Your task to perform on an android device: What's the weather today? Image 0: 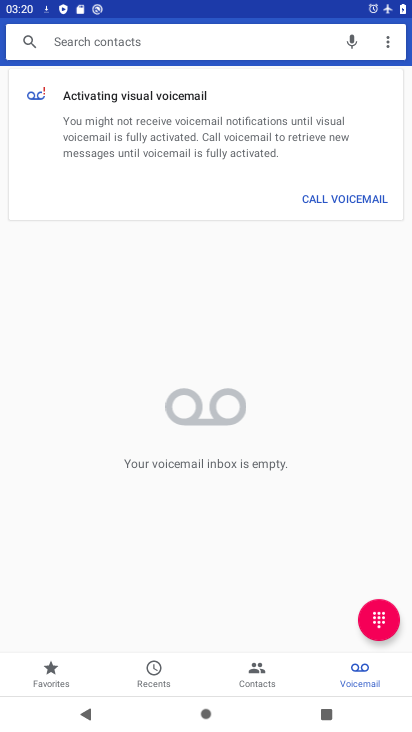
Step 0: press home button
Your task to perform on an android device: What's the weather today? Image 1: 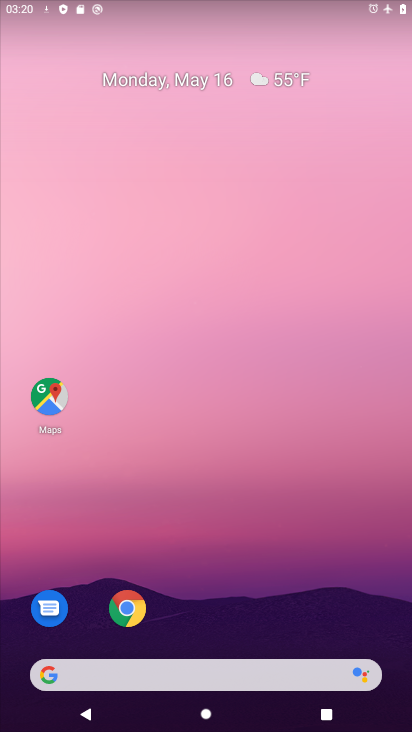
Step 1: drag from (223, 633) to (259, 234)
Your task to perform on an android device: What's the weather today? Image 2: 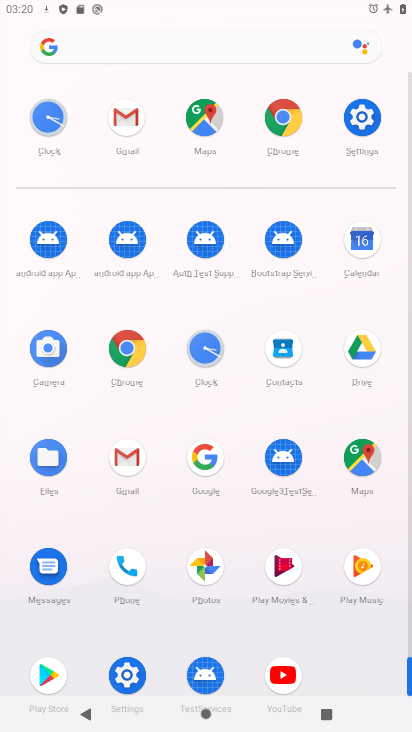
Step 2: click (192, 460)
Your task to perform on an android device: What's the weather today? Image 3: 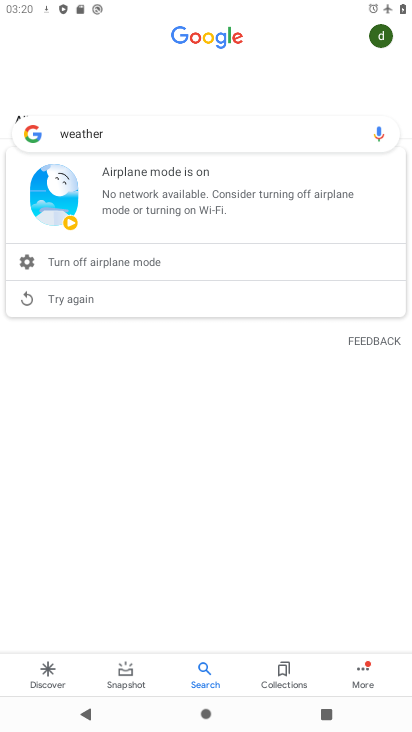
Step 3: click (164, 231)
Your task to perform on an android device: What's the weather today? Image 4: 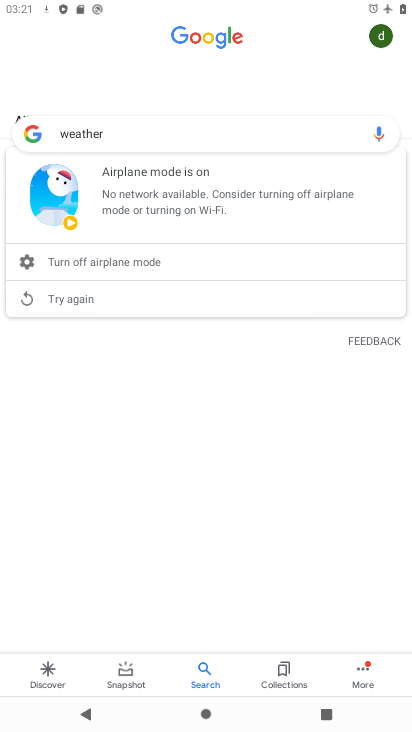
Step 4: task complete